Your task to perform on an android device: set an alarm Image 0: 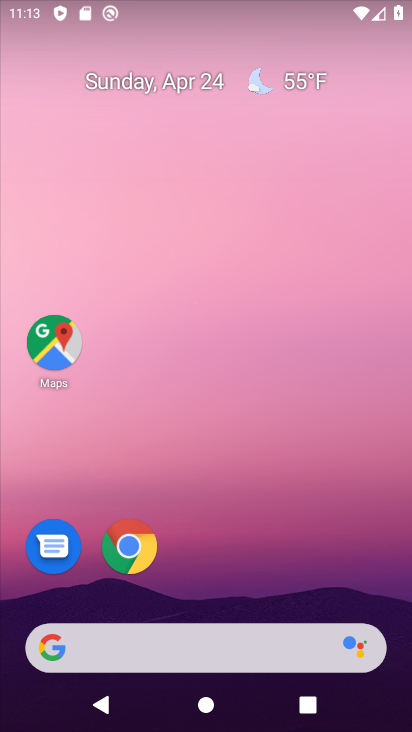
Step 0: drag from (238, 525) to (254, 69)
Your task to perform on an android device: set an alarm Image 1: 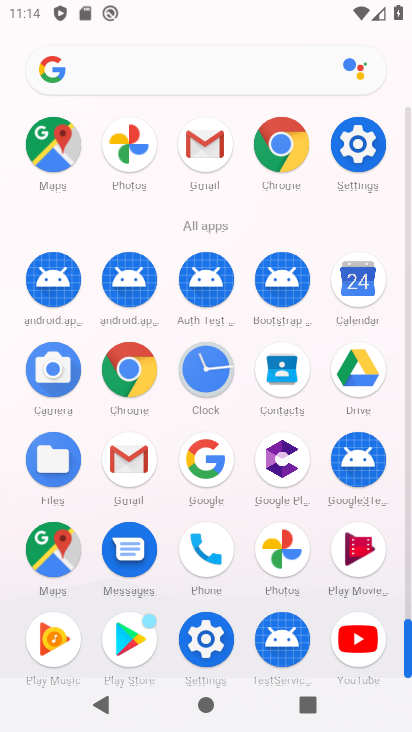
Step 1: click (206, 367)
Your task to perform on an android device: set an alarm Image 2: 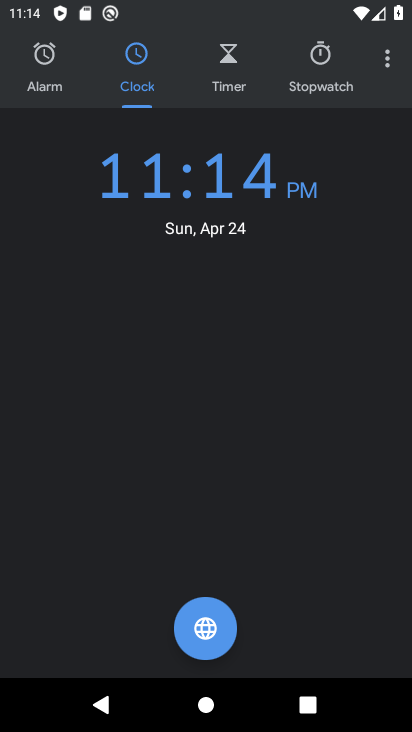
Step 2: click (43, 62)
Your task to perform on an android device: set an alarm Image 3: 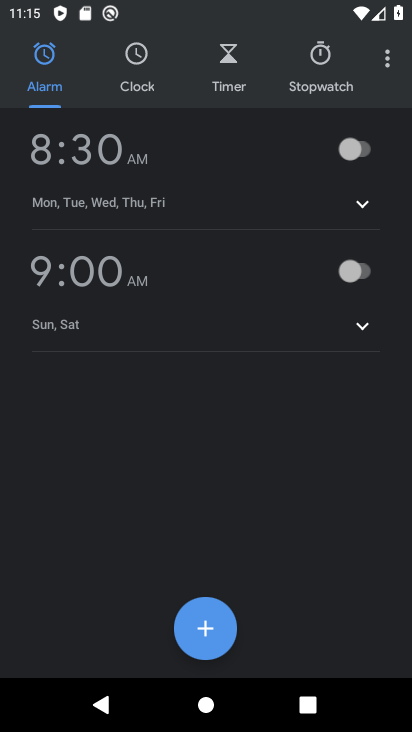
Step 3: click (209, 628)
Your task to perform on an android device: set an alarm Image 4: 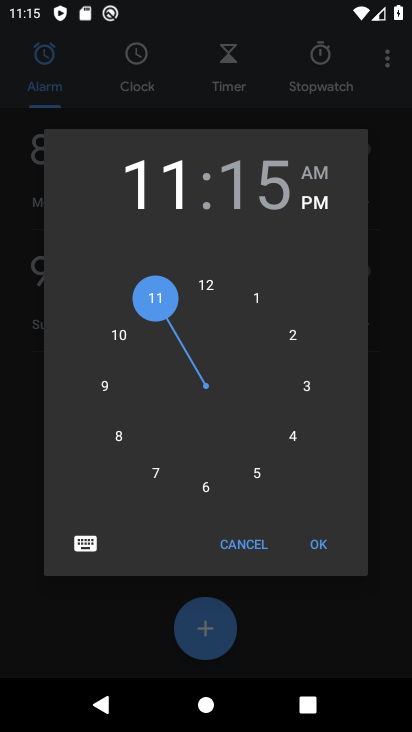
Step 4: click (305, 392)
Your task to perform on an android device: set an alarm Image 5: 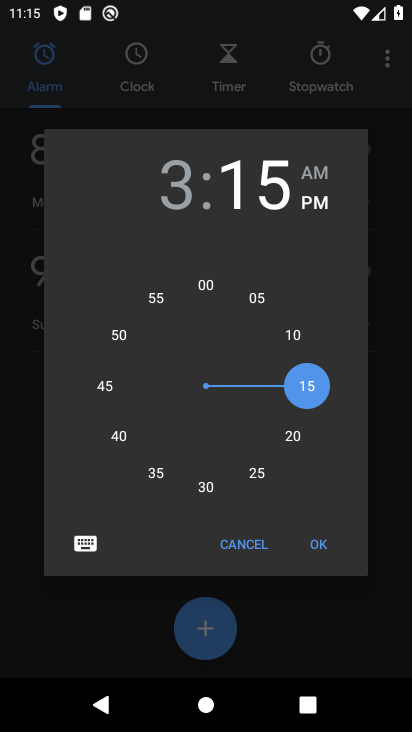
Step 5: click (190, 184)
Your task to perform on an android device: set an alarm Image 6: 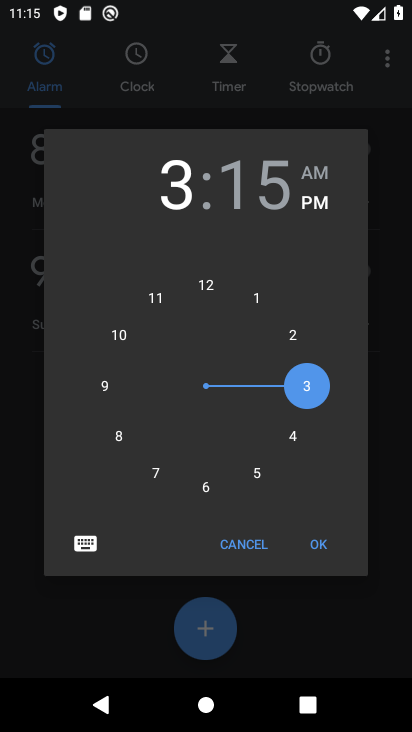
Step 6: click (125, 342)
Your task to perform on an android device: set an alarm Image 7: 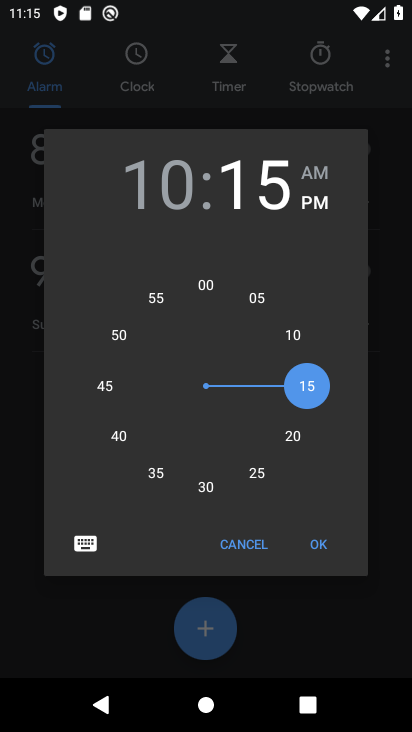
Step 7: click (312, 544)
Your task to perform on an android device: set an alarm Image 8: 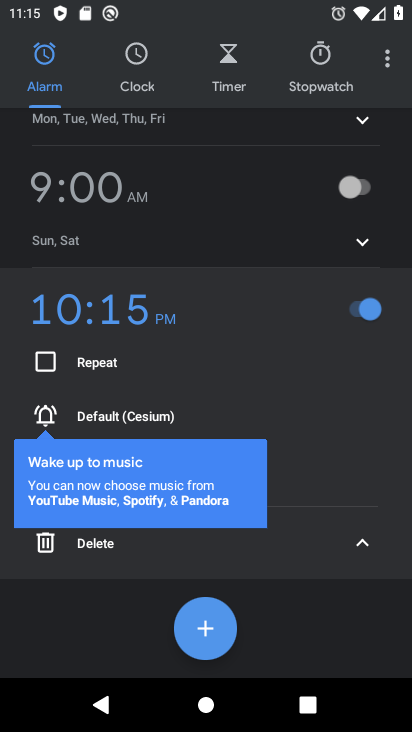
Step 8: click (357, 537)
Your task to perform on an android device: set an alarm Image 9: 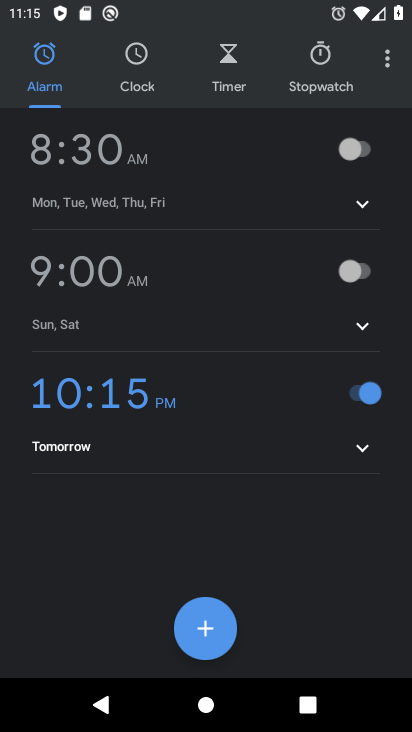
Step 9: task complete